Your task to perform on an android device: remove spam from my inbox in the gmail app Image 0: 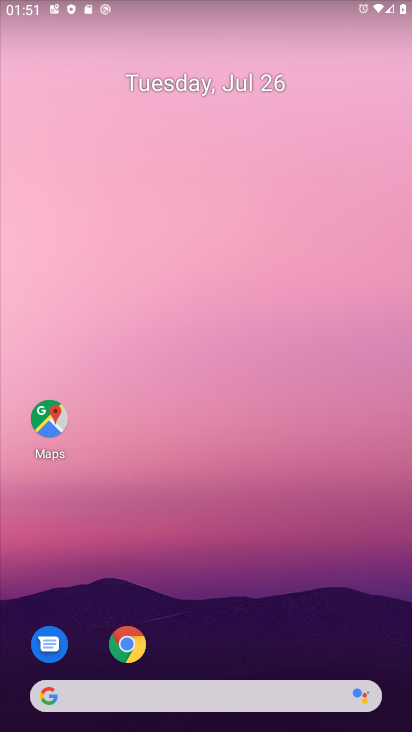
Step 0: drag from (206, 644) to (220, 153)
Your task to perform on an android device: remove spam from my inbox in the gmail app Image 1: 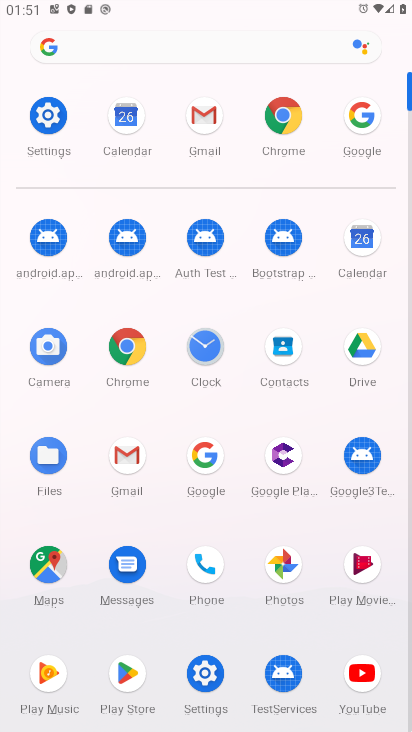
Step 1: click (117, 449)
Your task to perform on an android device: remove spam from my inbox in the gmail app Image 2: 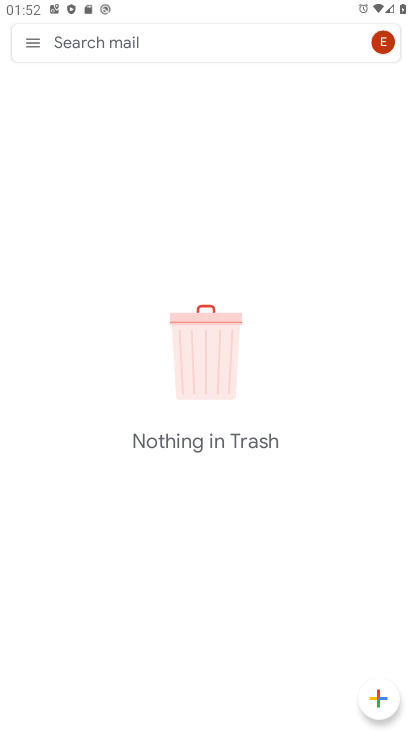
Step 2: task complete